Your task to perform on an android device: turn off notifications in google photos Image 0: 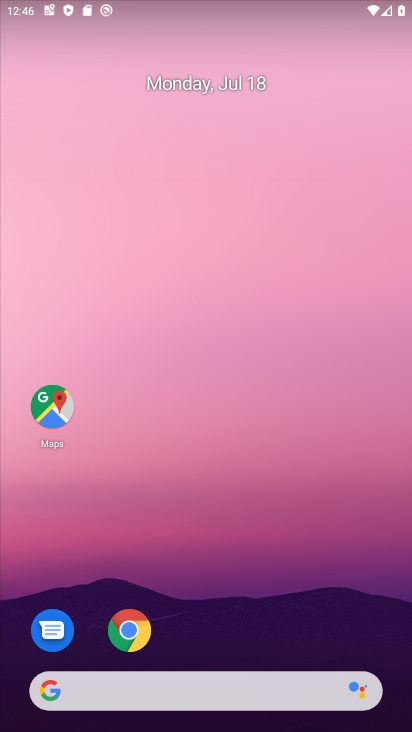
Step 0: drag from (373, 623) to (290, 160)
Your task to perform on an android device: turn off notifications in google photos Image 1: 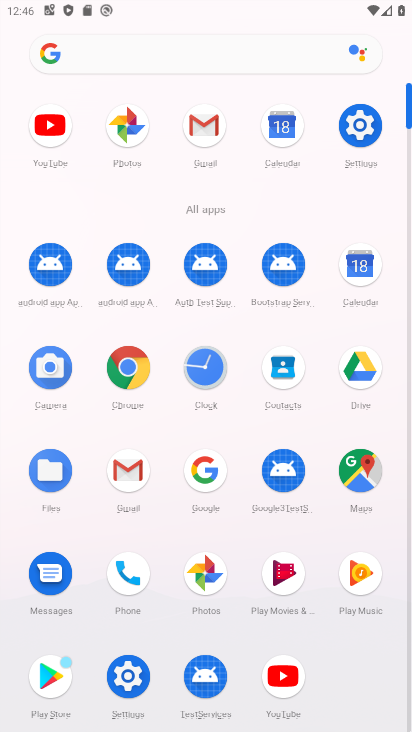
Step 1: click (129, 119)
Your task to perform on an android device: turn off notifications in google photos Image 2: 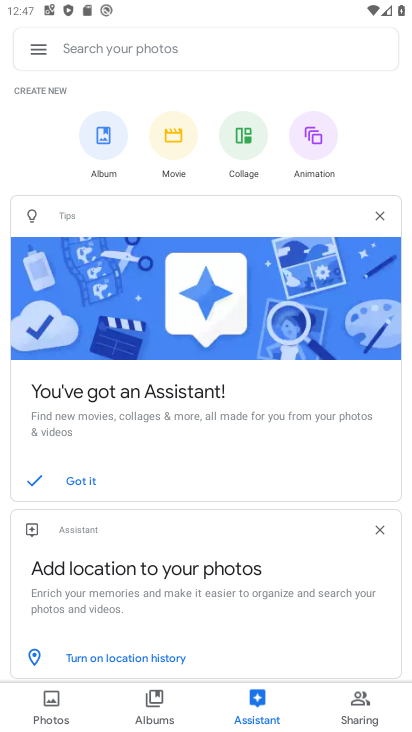
Step 2: click (46, 52)
Your task to perform on an android device: turn off notifications in google photos Image 3: 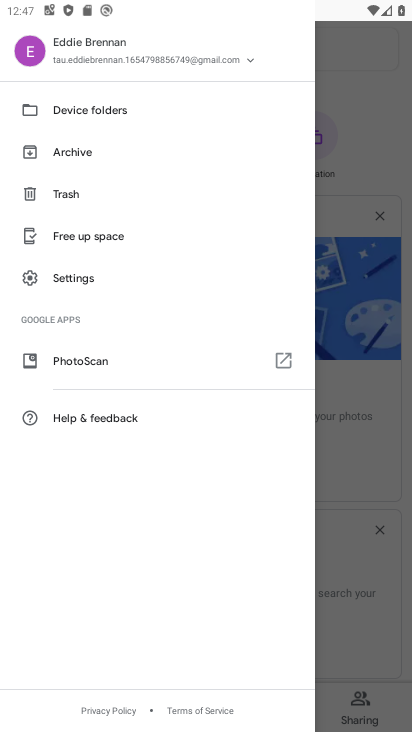
Step 3: click (99, 271)
Your task to perform on an android device: turn off notifications in google photos Image 4: 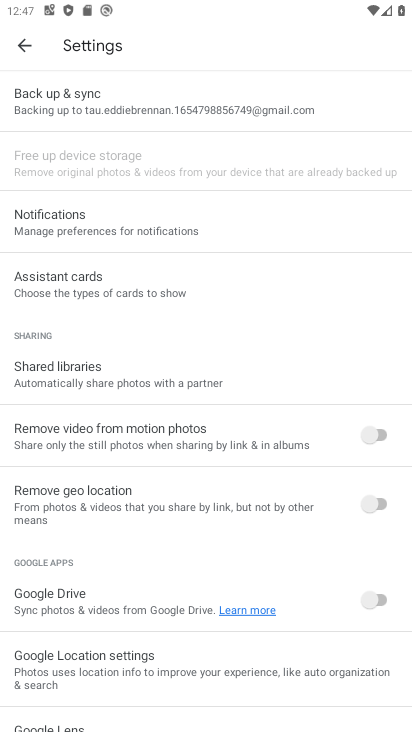
Step 4: click (193, 219)
Your task to perform on an android device: turn off notifications in google photos Image 5: 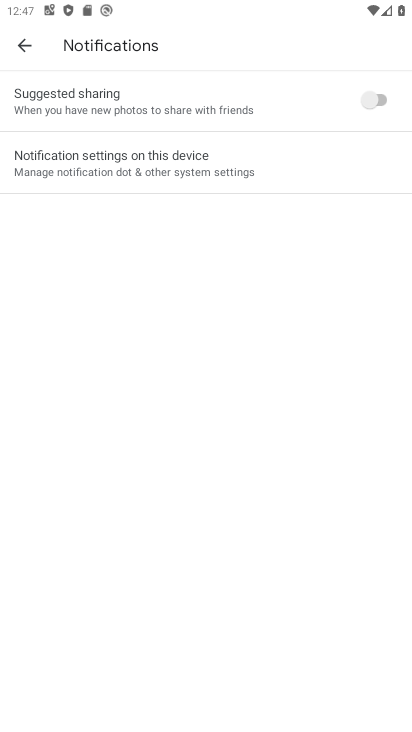
Step 5: click (350, 160)
Your task to perform on an android device: turn off notifications in google photos Image 6: 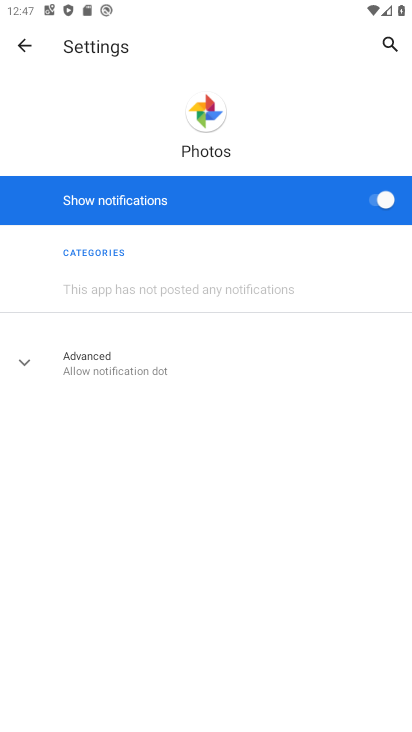
Step 6: click (372, 204)
Your task to perform on an android device: turn off notifications in google photos Image 7: 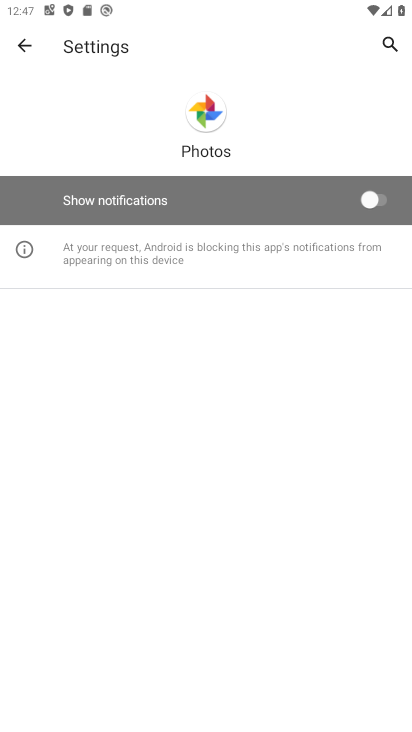
Step 7: task complete